Your task to perform on an android device: open app "Airtel Thanks" (install if not already installed) Image 0: 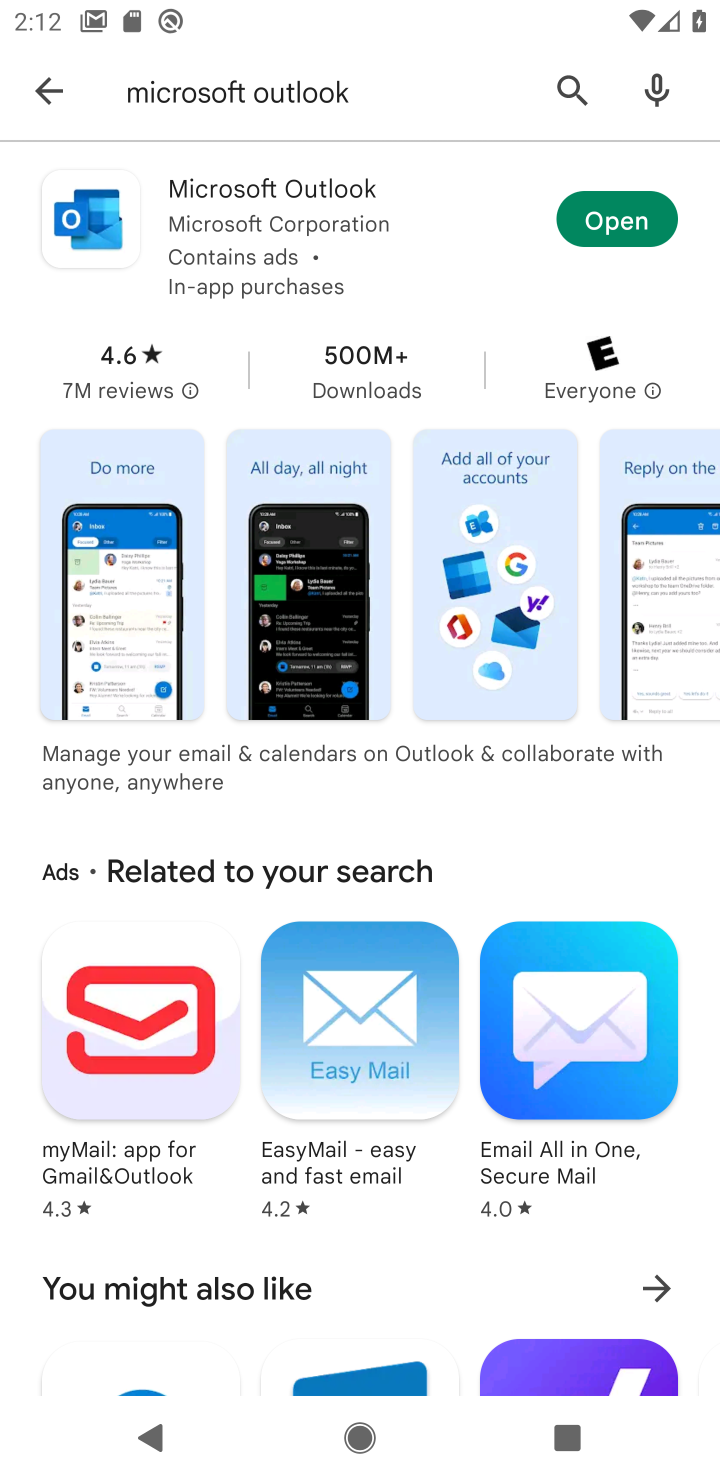
Step 0: click (47, 104)
Your task to perform on an android device: open app "Airtel Thanks" (install if not already installed) Image 1: 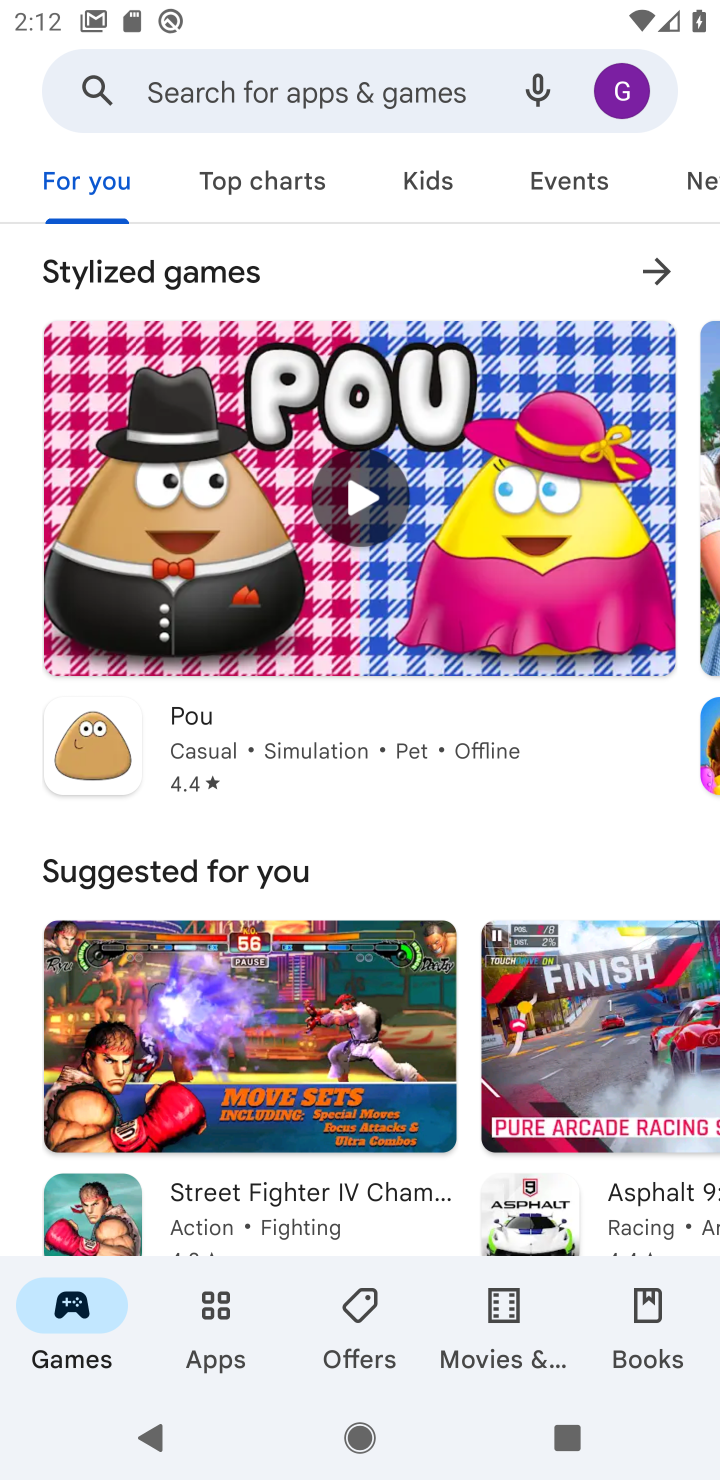
Step 1: click (281, 94)
Your task to perform on an android device: open app "Airtel Thanks" (install if not already installed) Image 2: 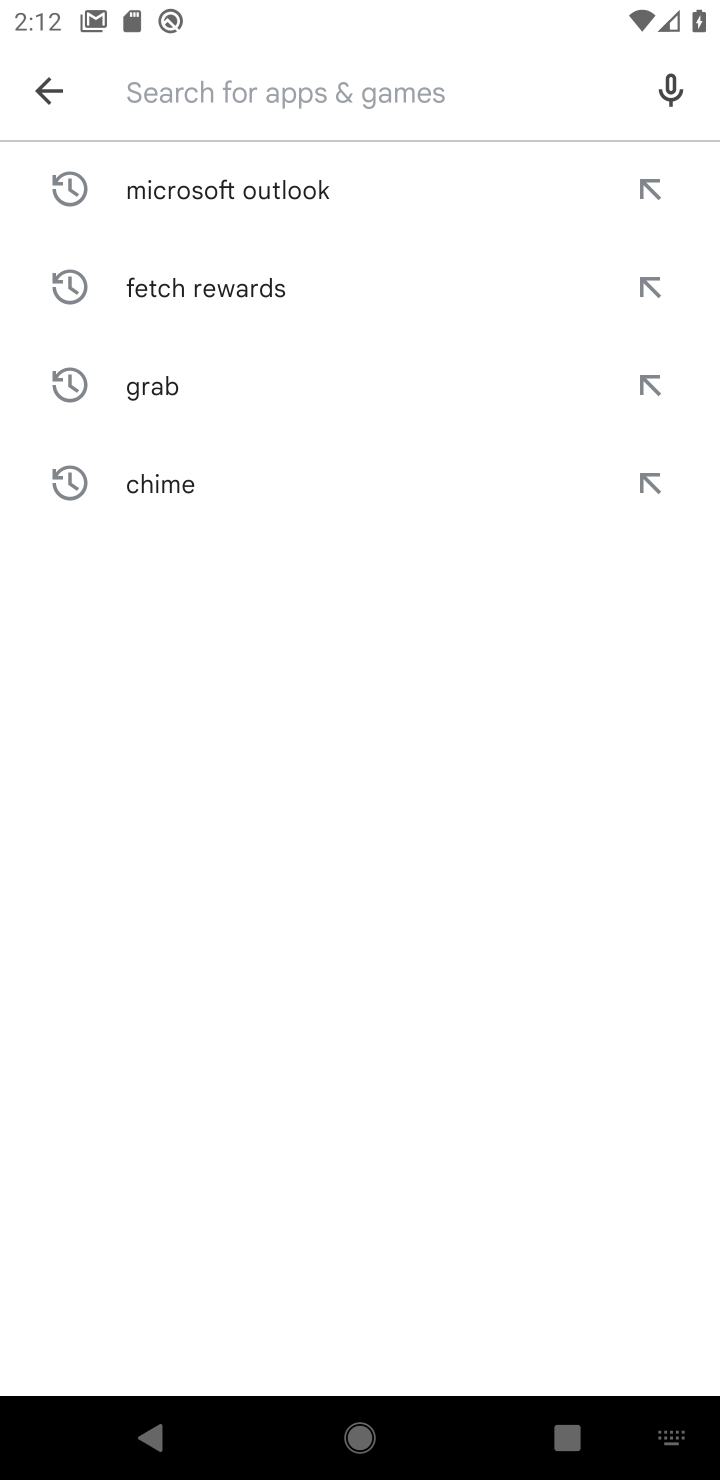
Step 2: type "Airtel Thanks"
Your task to perform on an android device: open app "Airtel Thanks" (install if not already installed) Image 3: 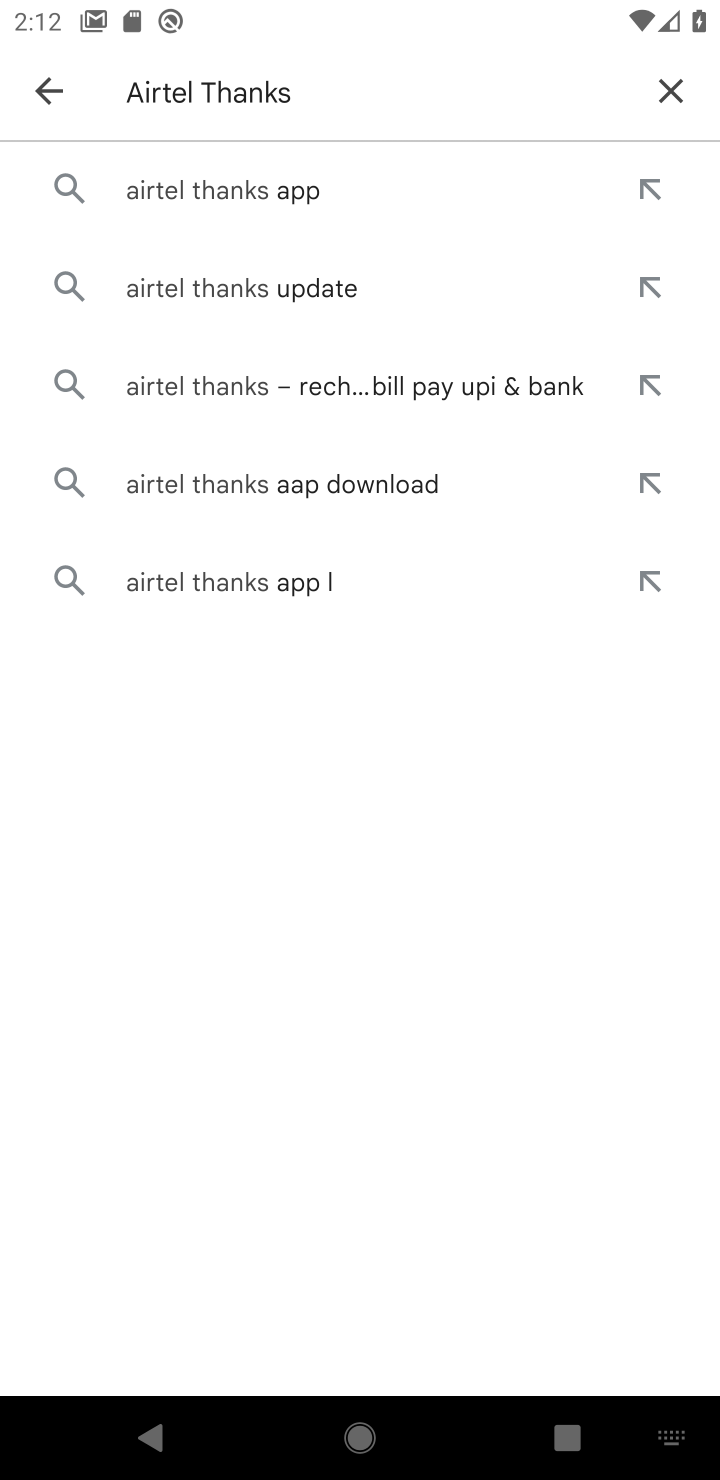
Step 3: click (272, 214)
Your task to perform on an android device: open app "Airtel Thanks" (install if not already installed) Image 4: 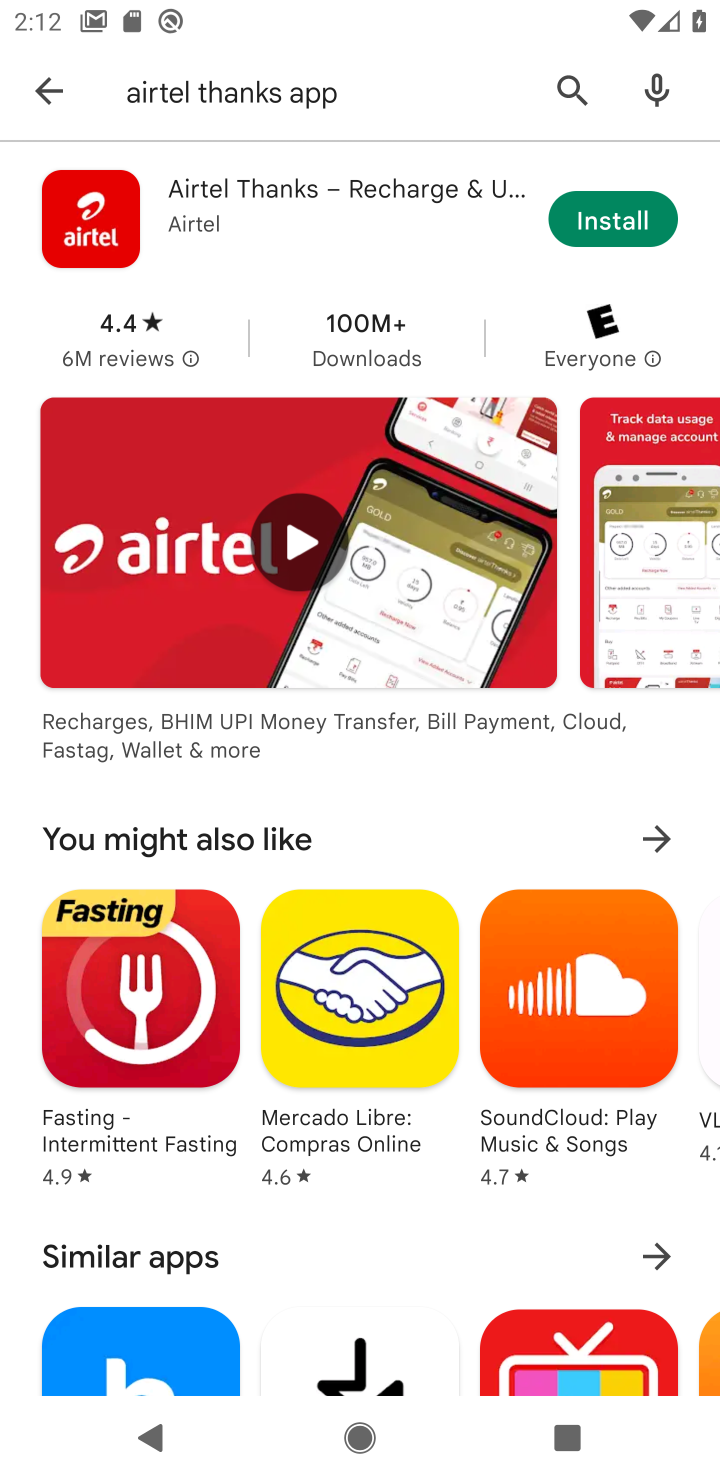
Step 4: click (612, 216)
Your task to perform on an android device: open app "Airtel Thanks" (install if not already installed) Image 5: 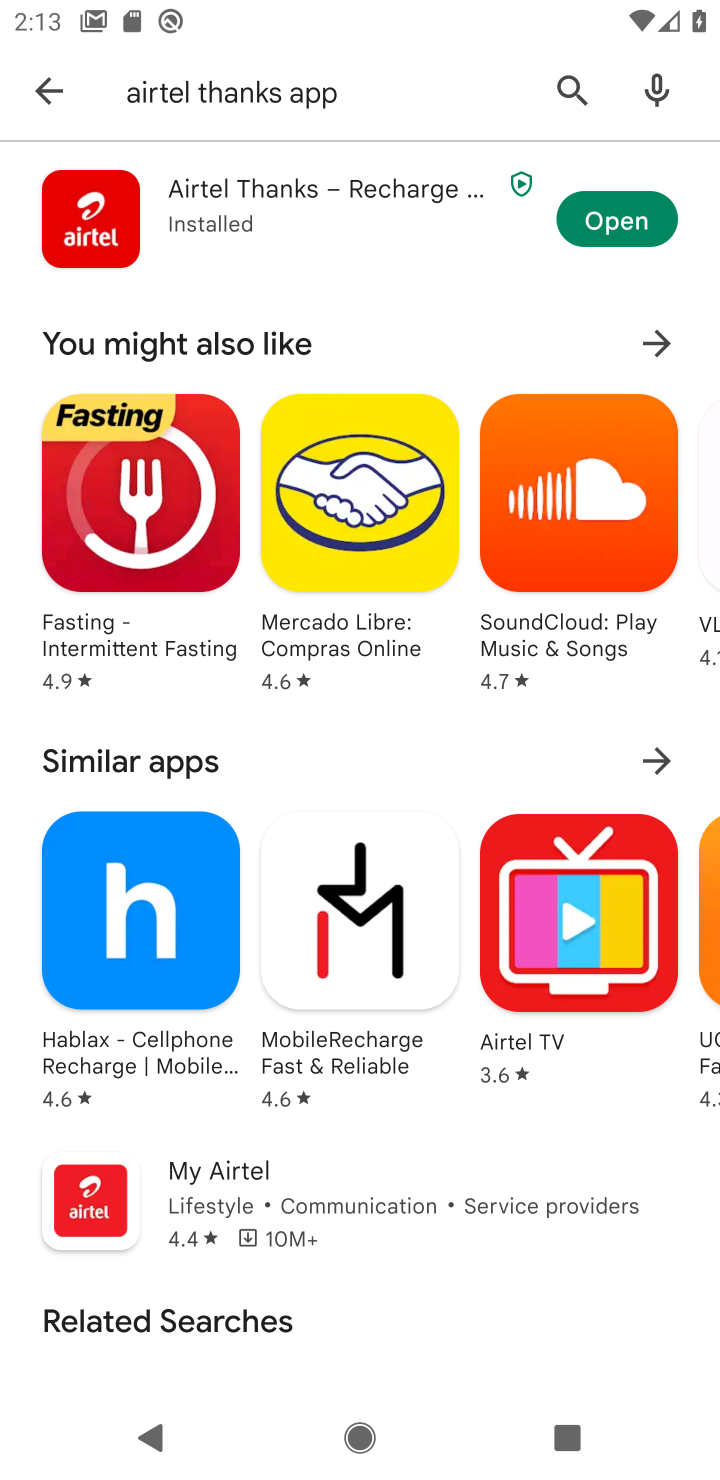
Step 5: task complete